Your task to perform on an android device: What's the weather going to be this weekend? Image 0: 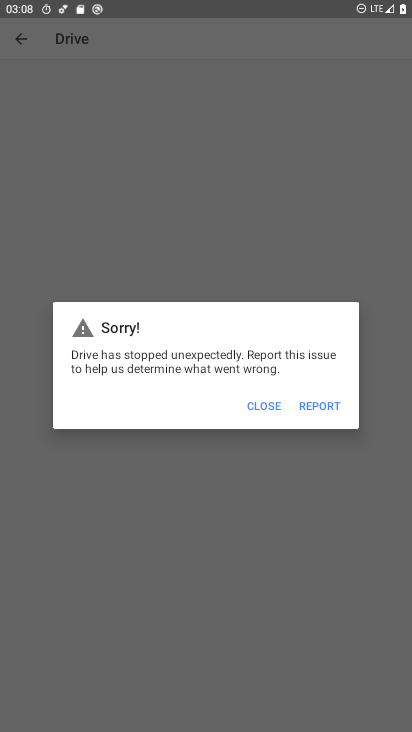
Step 0: press home button
Your task to perform on an android device: What's the weather going to be this weekend? Image 1: 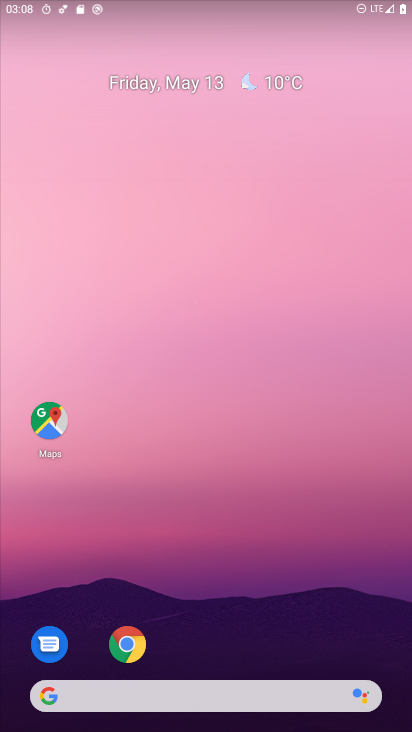
Step 1: drag from (319, 680) to (240, 123)
Your task to perform on an android device: What's the weather going to be this weekend? Image 2: 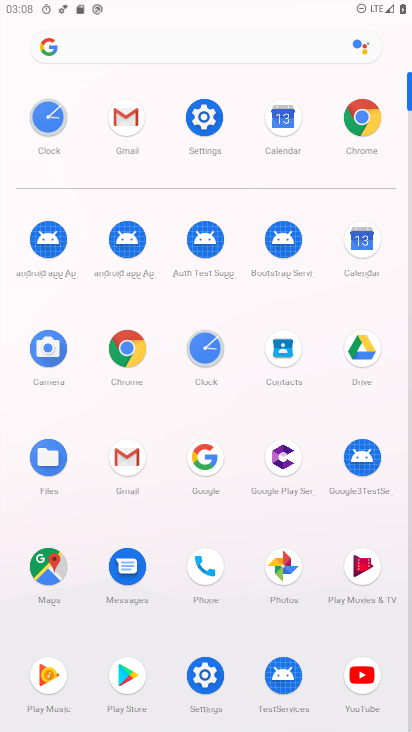
Step 2: click (130, 347)
Your task to perform on an android device: What's the weather going to be this weekend? Image 3: 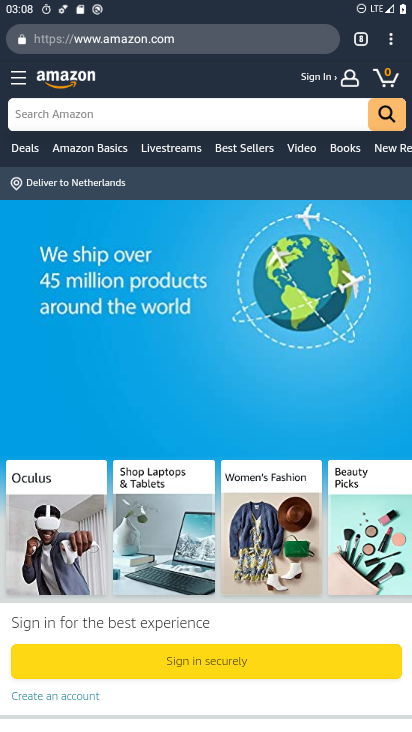
Step 3: drag from (383, 48) to (389, 226)
Your task to perform on an android device: What's the weather going to be this weekend? Image 4: 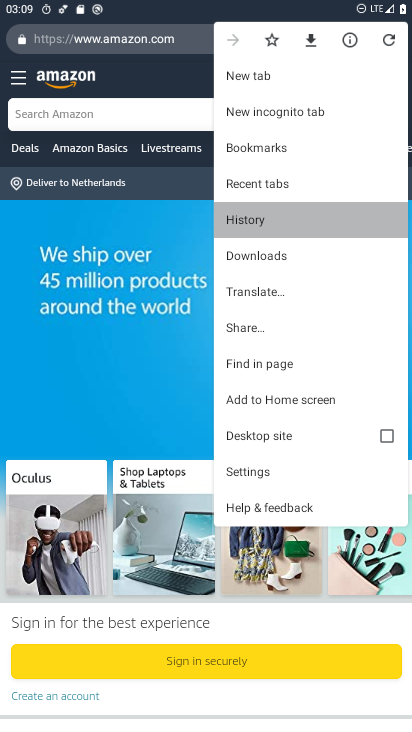
Step 4: drag from (387, 226) to (290, 264)
Your task to perform on an android device: What's the weather going to be this weekend? Image 5: 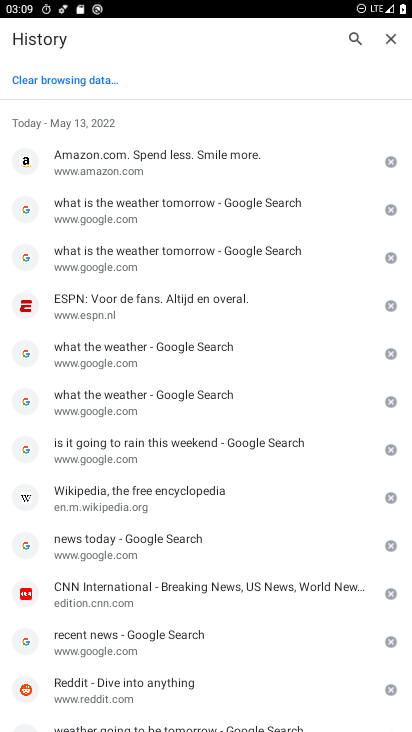
Step 5: press home button
Your task to perform on an android device: What's the weather going to be this weekend? Image 6: 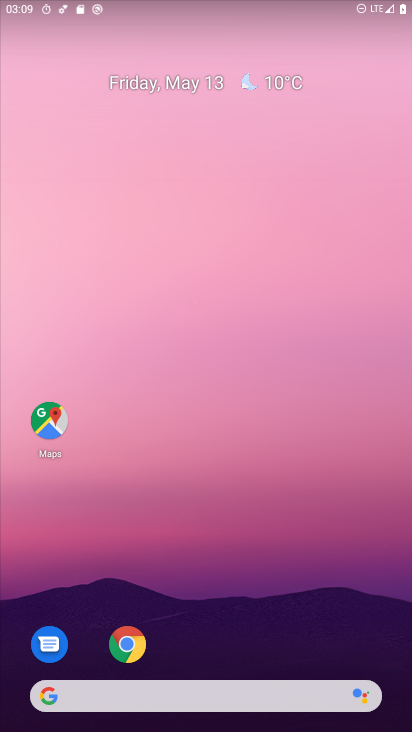
Step 6: drag from (329, 674) to (348, 117)
Your task to perform on an android device: What's the weather going to be this weekend? Image 7: 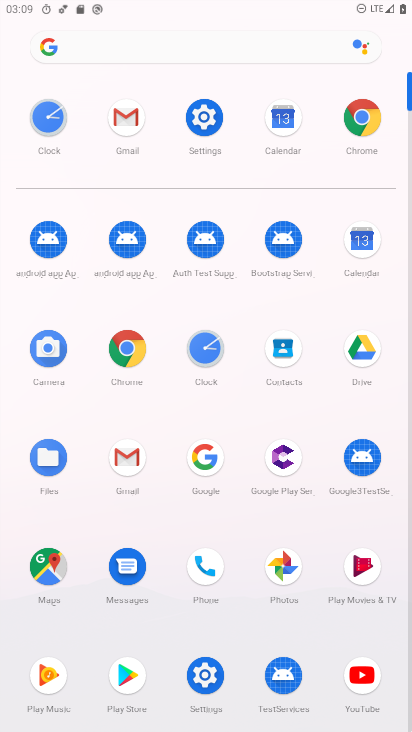
Step 7: click (122, 340)
Your task to perform on an android device: What's the weather going to be this weekend? Image 8: 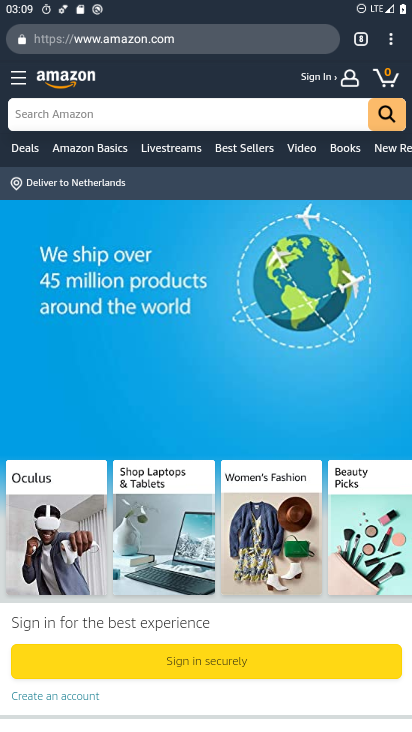
Step 8: click (250, 44)
Your task to perform on an android device: What's the weather going to be this weekend? Image 9: 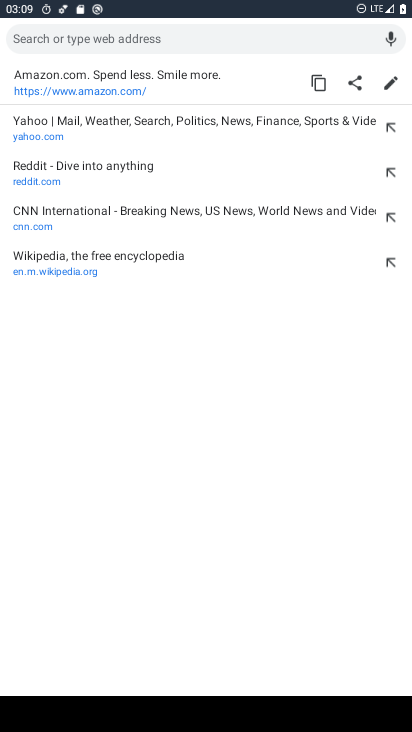
Step 9: type "what the weather going to be this weekend"
Your task to perform on an android device: What's the weather going to be this weekend? Image 10: 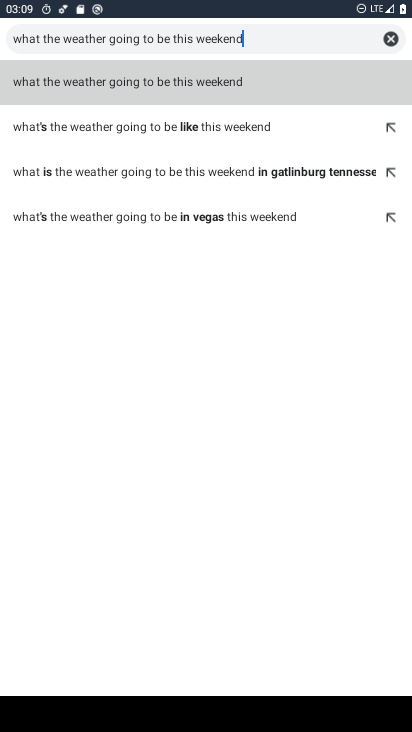
Step 10: click (151, 94)
Your task to perform on an android device: What's the weather going to be this weekend? Image 11: 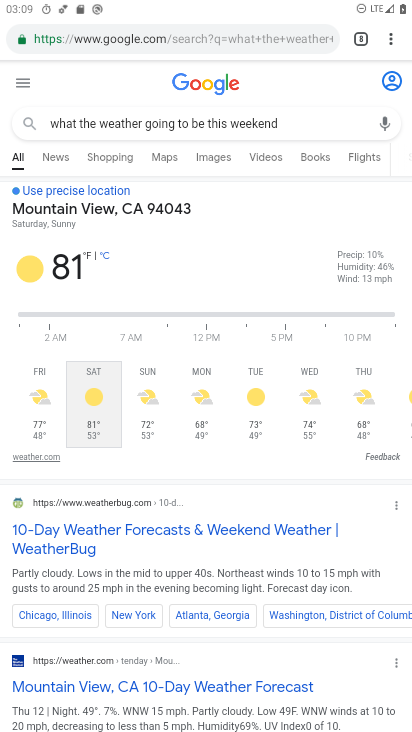
Step 11: task complete